Your task to perform on an android device: Add "duracell triple a" to the cart on target.com Image 0: 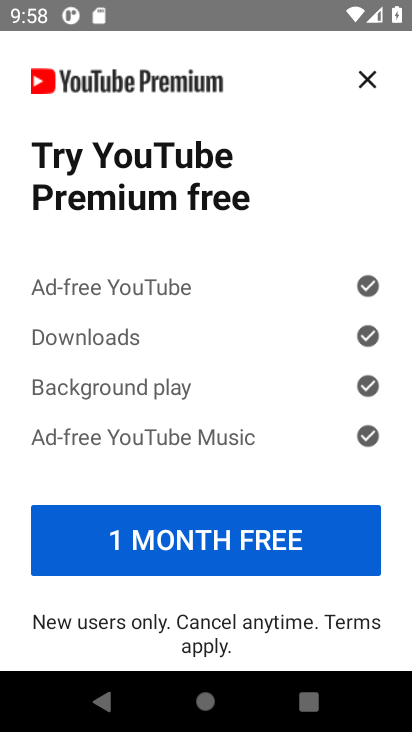
Step 0: click (377, 85)
Your task to perform on an android device: Add "duracell triple a" to the cart on target.com Image 1: 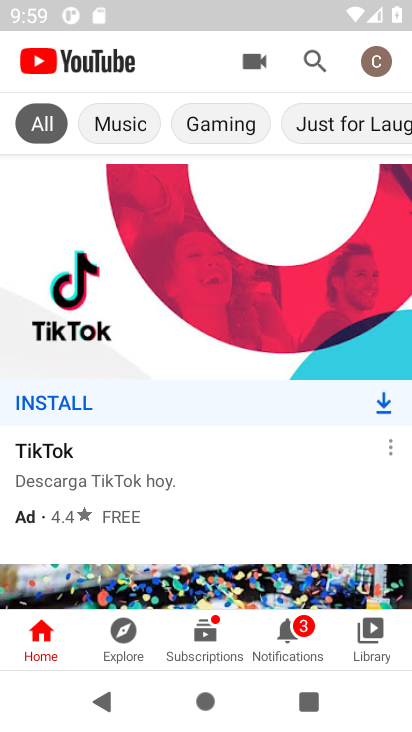
Step 1: press home button
Your task to perform on an android device: Add "duracell triple a" to the cart on target.com Image 2: 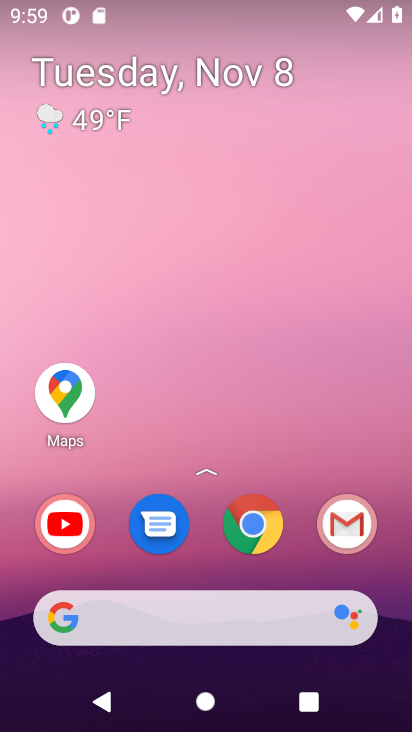
Step 2: click (238, 526)
Your task to perform on an android device: Add "duracell triple a" to the cart on target.com Image 3: 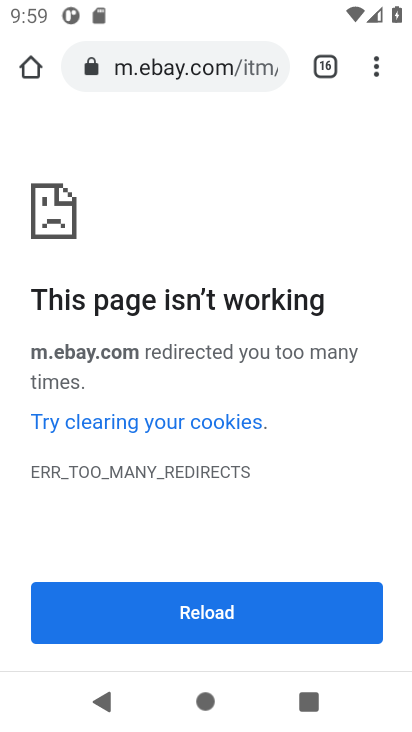
Step 3: click (207, 75)
Your task to perform on an android device: Add "duracell triple a" to the cart on target.com Image 4: 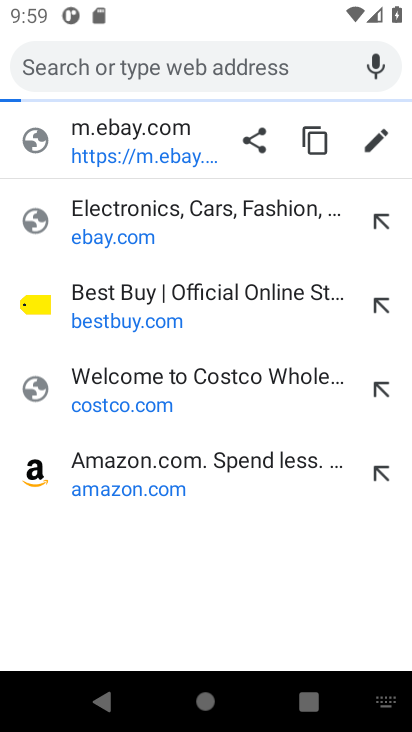
Step 4: type "target.com"
Your task to perform on an android device: Add "duracell triple a" to the cart on target.com Image 5: 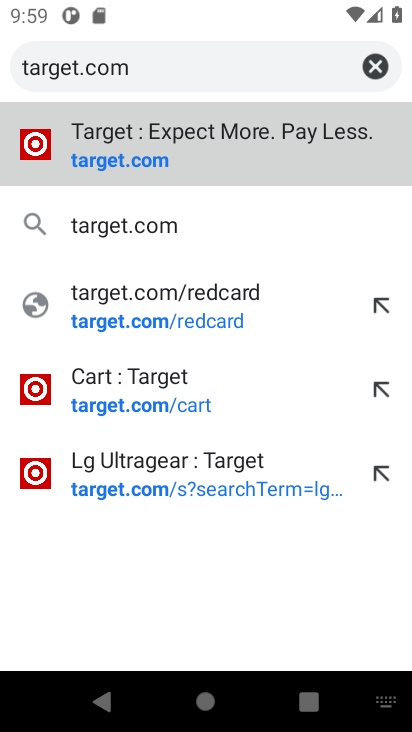
Step 5: click (116, 159)
Your task to perform on an android device: Add "duracell triple a" to the cart on target.com Image 6: 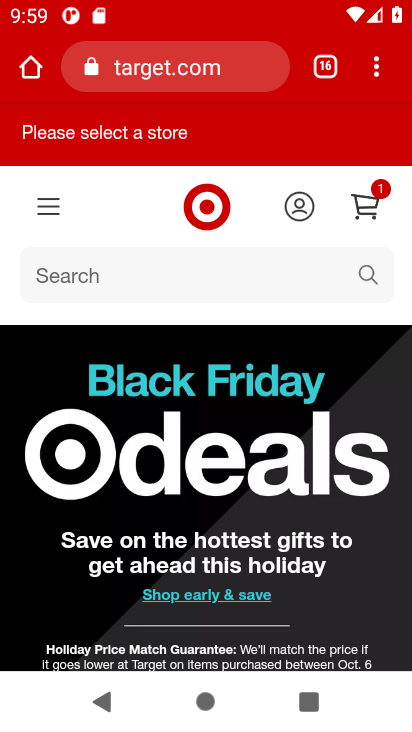
Step 6: click (366, 273)
Your task to perform on an android device: Add "duracell triple a" to the cart on target.com Image 7: 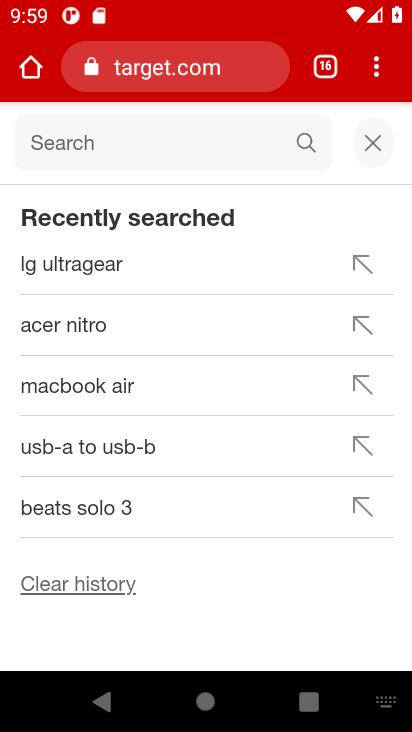
Step 7: type "duracell triple a"
Your task to perform on an android device: Add "duracell triple a" to the cart on target.com Image 8: 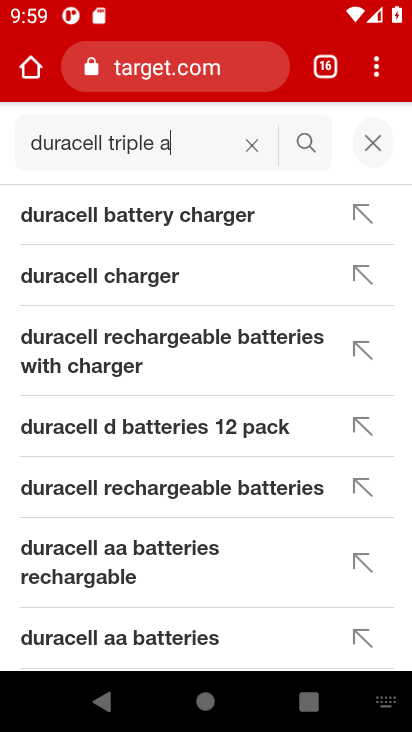
Step 8: click (314, 147)
Your task to perform on an android device: Add "duracell triple a" to the cart on target.com Image 9: 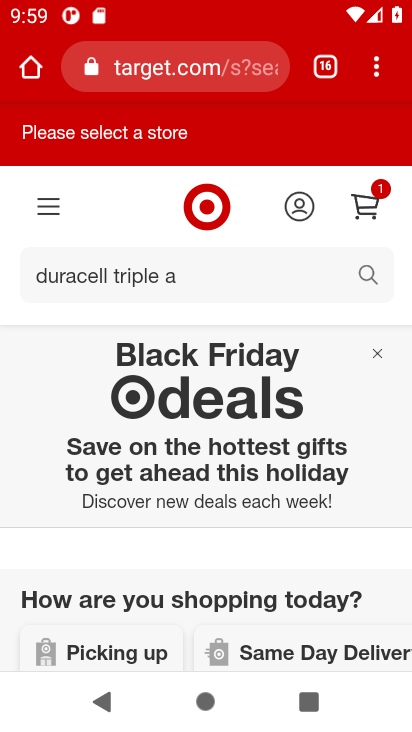
Step 9: drag from (210, 539) to (196, 199)
Your task to perform on an android device: Add "duracell triple a" to the cart on target.com Image 10: 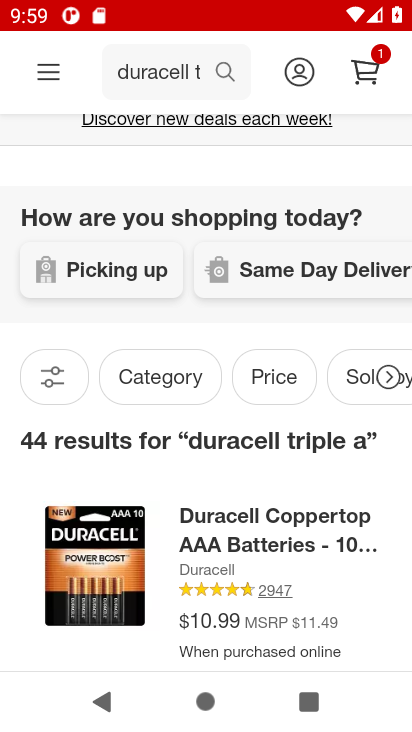
Step 10: drag from (182, 510) to (183, 298)
Your task to perform on an android device: Add "duracell triple a" to the cart on target.com Image 11: 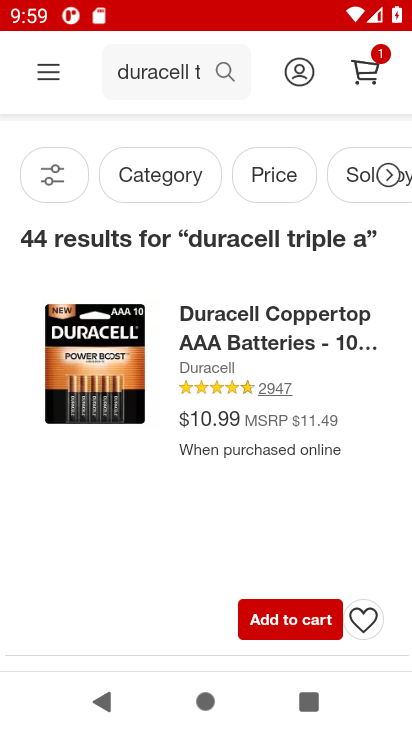
Step 11: click (269, 614)
Your task to perform on an android device: Add "duracell triple a" to the cart on target.com Image 12: 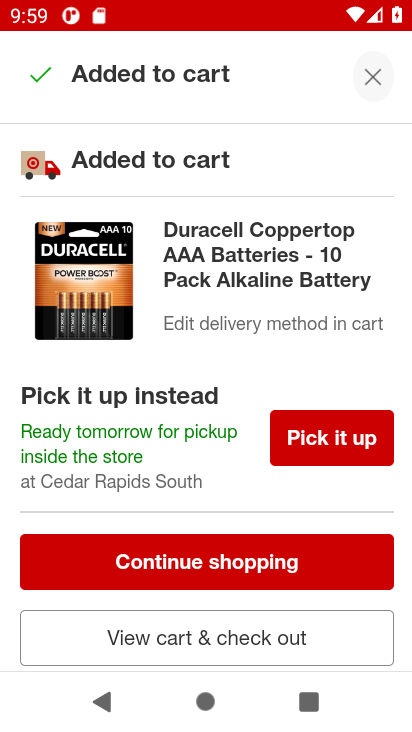
Step 12: task complete